Your task to perform on an android device: Open the calendar app, open the side menu, and click the "Day" option Image 0: 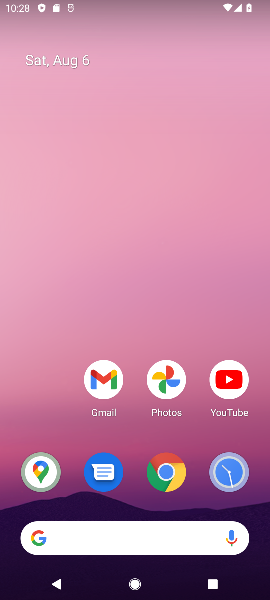
Step 0: drag from (158, 474) to (89, 86)
Your task to perform on an android device: Open the calendar app, open the side menu, and click the "Day" option Image 1: 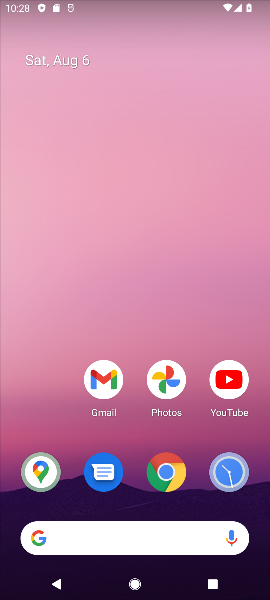
Step 1: drag from (157, 473) to (120, 172)
Your task to perform on an android device: Open the calendar app, open the side menu, and click the "Day" option Image 2: 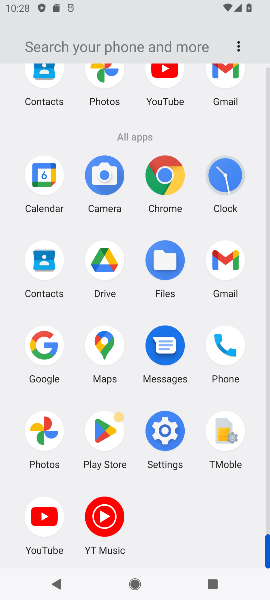
Step 2: drag from (180, 413) to (155, 254)
Your task to perform on an android device: Open the calendar app, open the side menu, and click the "Day" option Image 3: 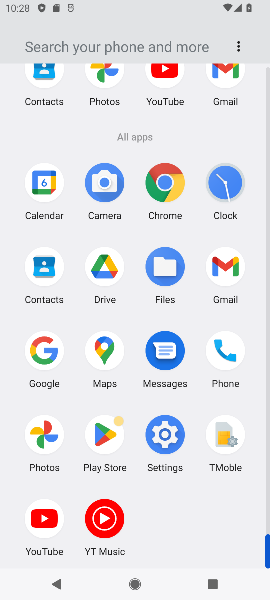
Step 3: click (45, 187)
Your task to perform on an android device: Open the calendar app, open the side menu, and click the "Day" option Image 4: 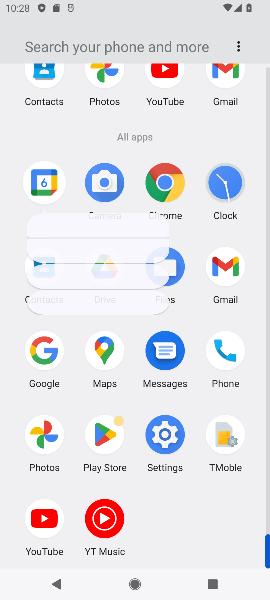
Step 4: click (45, 187)
Your task to perform on an android device: Open the calendar app, open the side menu, and click the "Day" option Image 5: 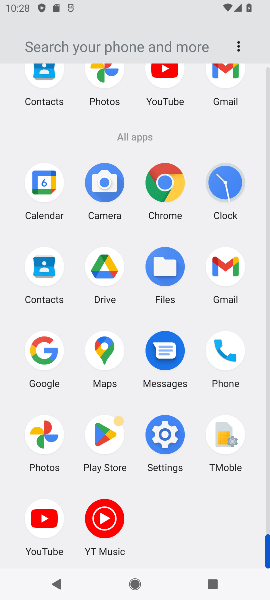
Step 5: click (45, 187)
Your task to perform on an android device: Open the calendar app, open the side menu, and click the "Day" option Image 6: 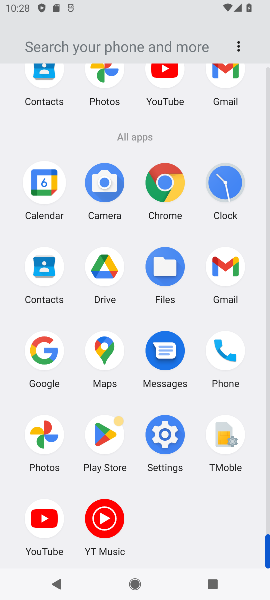
Step 6: click (44, 188)
Your task to perform on an android device: Open the calendar app, open the side menu, and click the "Day" option Image 7: 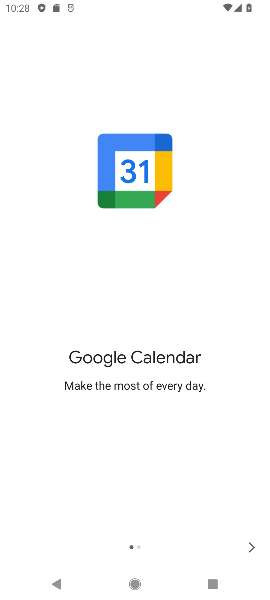
Step 7: click (262, 542)
Your task to perform on an android device: Open the calendar app, open the side menu, and click the "Day" option Image 8: 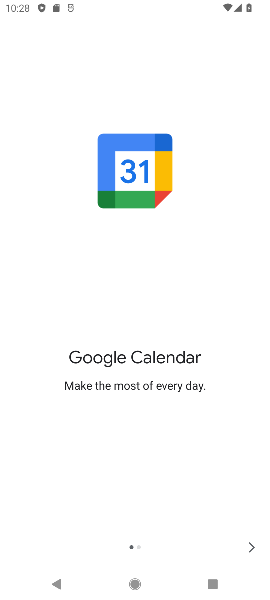
Step 8: click (251, 546)
Your task to perform on an android device: Open the calendar app, open the side menu, and click the "Day" option Image 9: 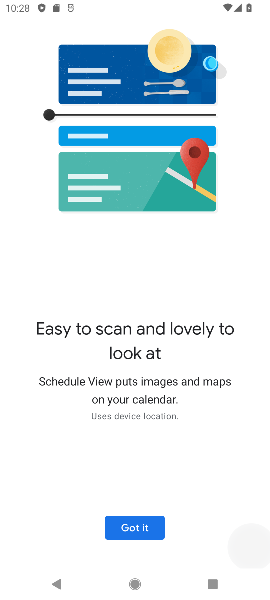
Step 9: click (251, 546)
Your task to perform on an android device: Open the calendar app, open the side menu, and click the "Day" option Image 10: 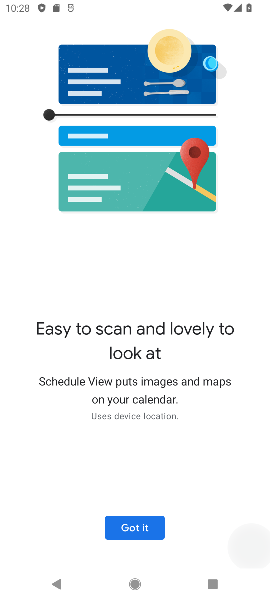
Step 10: click (169, 533)
Your task to perform on an android device: Open the calendar app, open the side menu, and click the "Day" option Image 11: 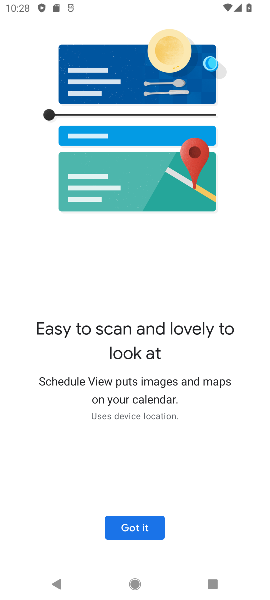
Step 11: click (169, 533)
Your task to perform on an android device: Open the calendar app, open the side menu, and click the "Day" option Image 12: 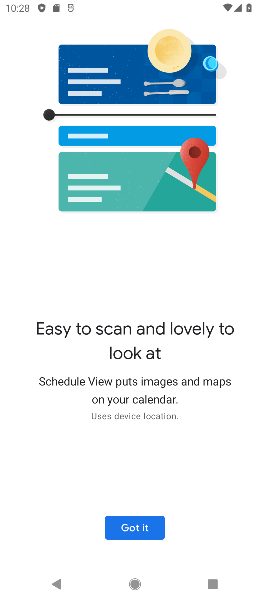
Step 12: click (149, 533)
Your task to perform on an android device: Open the calendar app, open the side menu, and click the "Day" option Image 13: 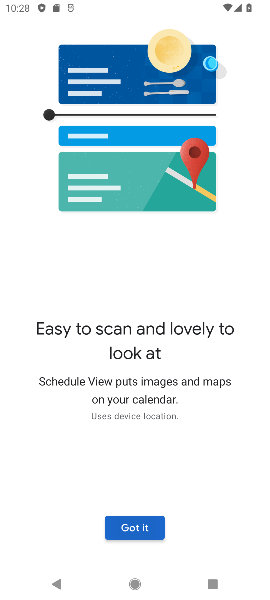
Step 13: click (153, 528)
Your task to perform on an android device: Open the calendar app, open the side menu, and click the "Day" option Image 14: 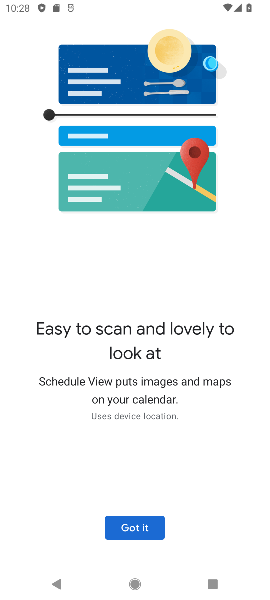
Step 14: click (153, 528)
Your task to perform on an android device: Open the calendar app, open the side menu, and click the "Day" option Image 15: 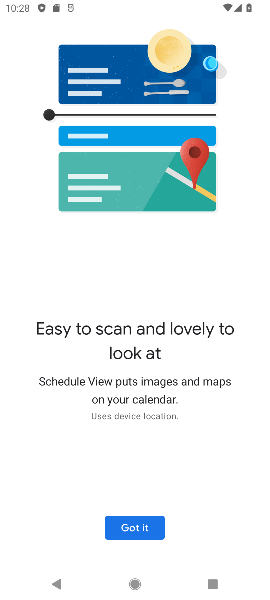
Step 15: click (154, 529)
Your task to perform on an android device: Open the calendar app, open the side menu, and click the "Day" option Image 16: 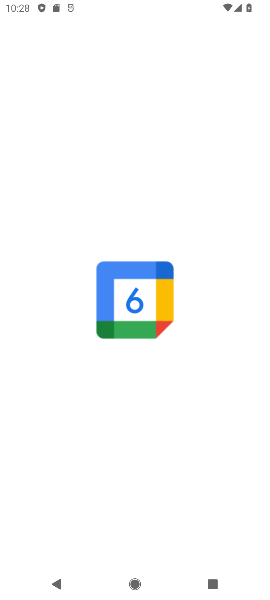
Step 16: click (156, 526)
Your task to perform on an android device: Open the calendar app, open the side menu, and click the "Day" option Image 17: 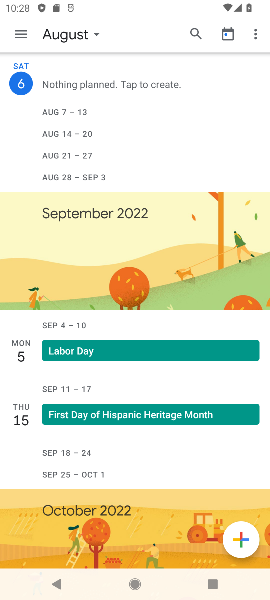
Step 17: click (27, 28)
Your task to perform on an android device: Open the calendar app, open the side menu, and click the "Day" option Image 18: 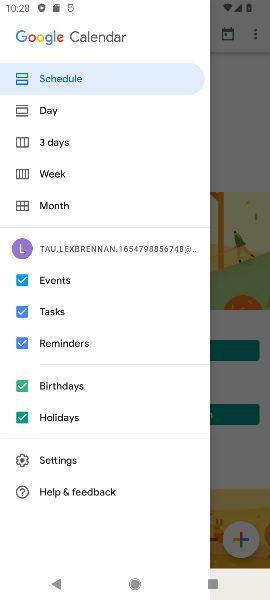
Step 18: click (42, 119)
Your task to perform on an android device: Open the calendar app, open the side menu, and click the "Day" option Image 19: 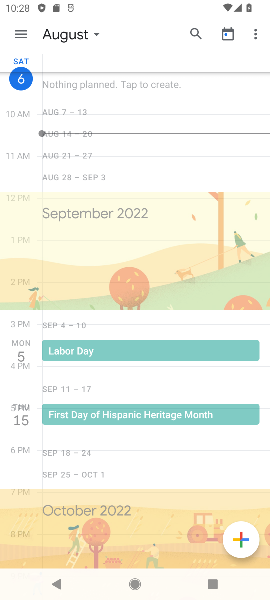
Step 19: click (43, 110)
Your task to perform on an android device: Open the calendar app, open the side menu, and click the "Day" option Image 20: 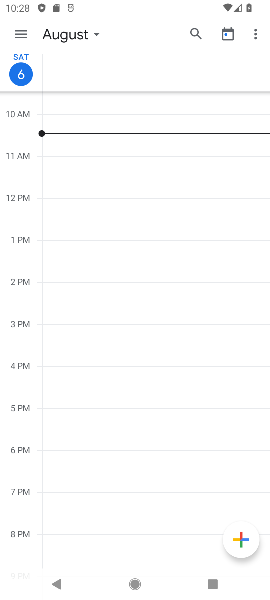
Step 20: click (11, 26)
Your task to perform on an android device: Open the calendar app, open the side menu, and click the "Day" option Image 21: 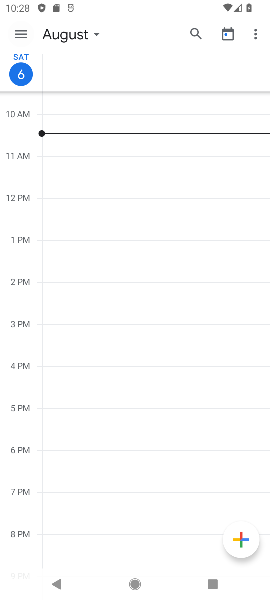
Step 21: click (18, 36)
Your task to perform on an android device: Open the calendar app, open the side menu, and click the "Day" option Image 22: 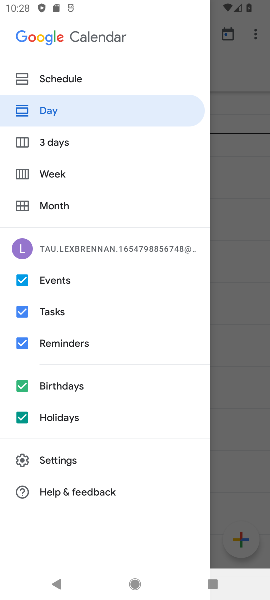
Step 22: click (53, 116)
Your task to perform on an android device: Open the calendar app, open the side menu, and click the "Day" option Image 23: 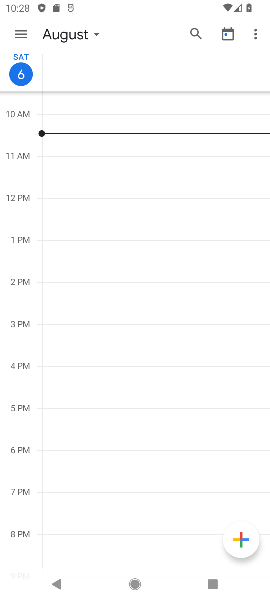
Step 23: task complete